Your task to perform on an android device: turn on the 24-hour format for clock Image 0: 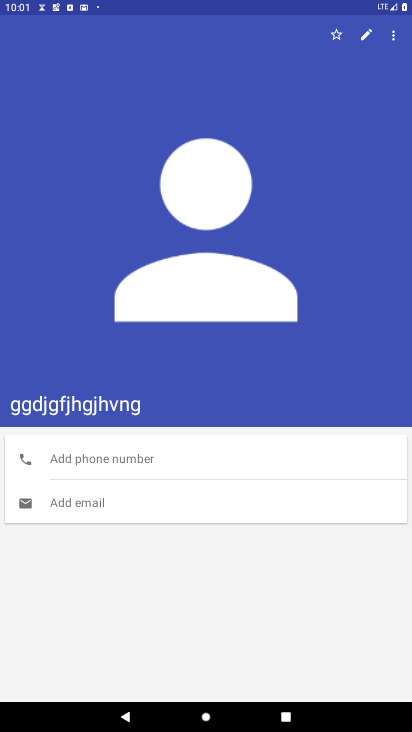
Step 0: press home button
Your task to perform on an android device: turn on the 24-hour format for clock Image 1: 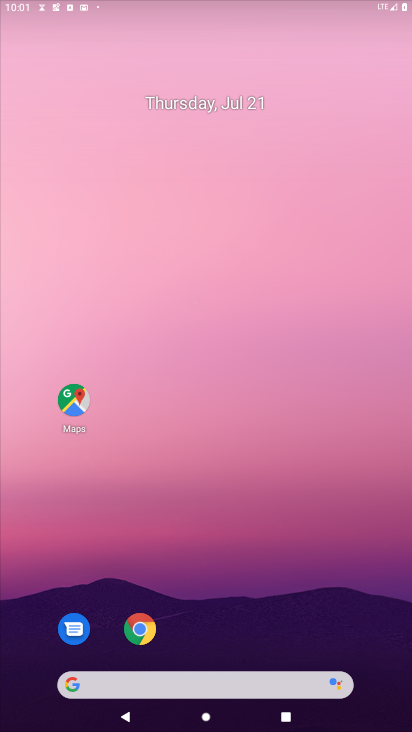
Step 1: drag from (229, 574) to (253, 101)
Your task to perform on an android device: turn on the 24-hour format for clock Image 2: 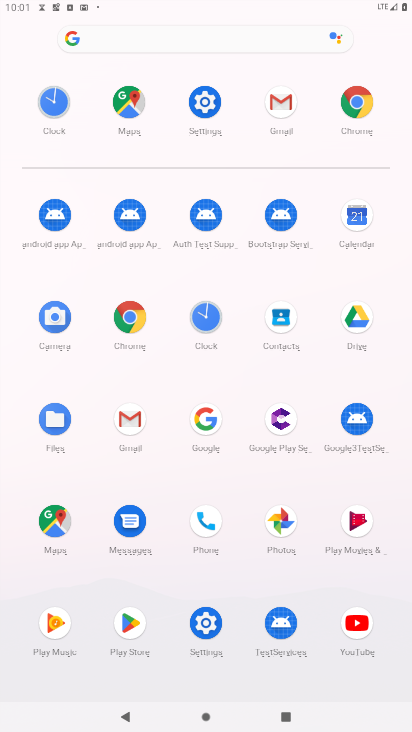
Step 2: click (190, 309)
Your task to perform on an android device: turn on the 24-hour format for clock Image 3: 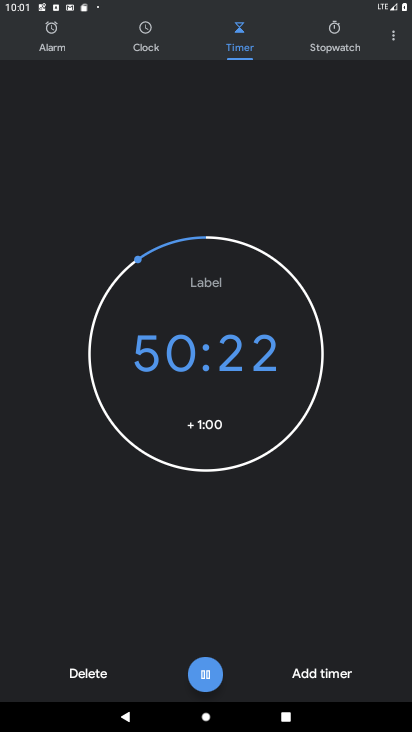
Step 3: click (396, 37)
Your task to perform on an android device: turn on the 24-hour format for clock Image 4: 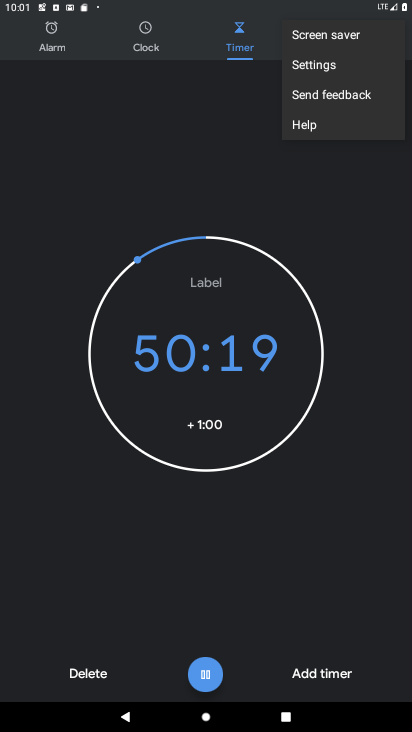
Step 4: click (345, 66)
Your task to perform on an android device: turn on the 24-hour format for clock Image 5: 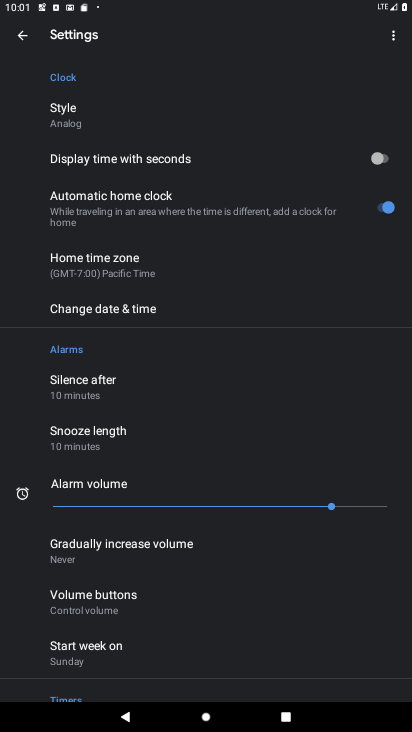
Step 5: click (172, 313)
Your task to perform on an android device: turn on the 24-hour format for clock Image 6: 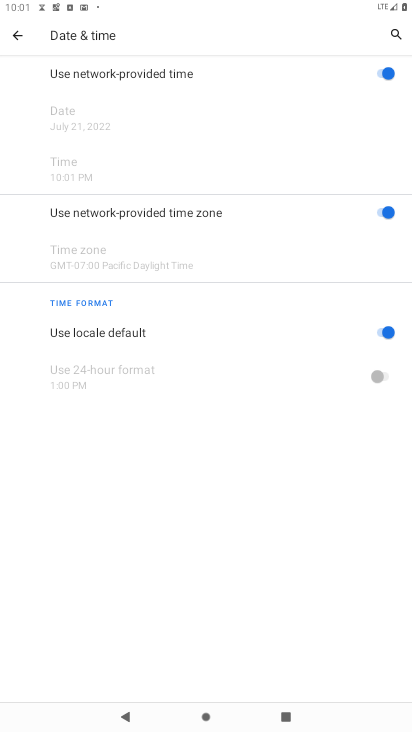
Step 6: click (388, 334)
Your task to perform on an android device: turn on the 24-hour format for clock Image 7: 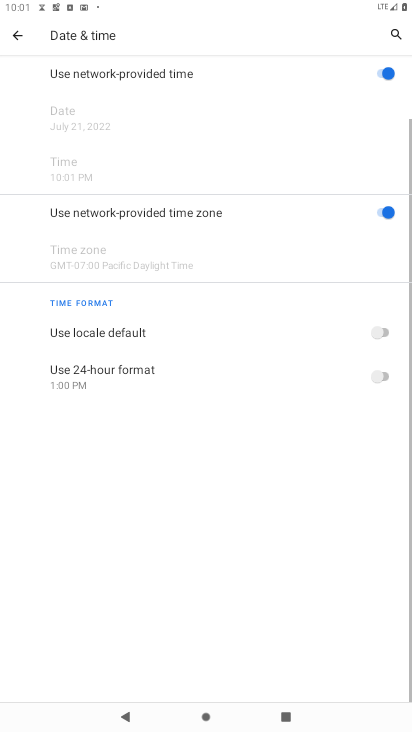
Step 7: click (380, 380)
Your task to perform on an android device: turn on the 24-hour format for clock Image 8: 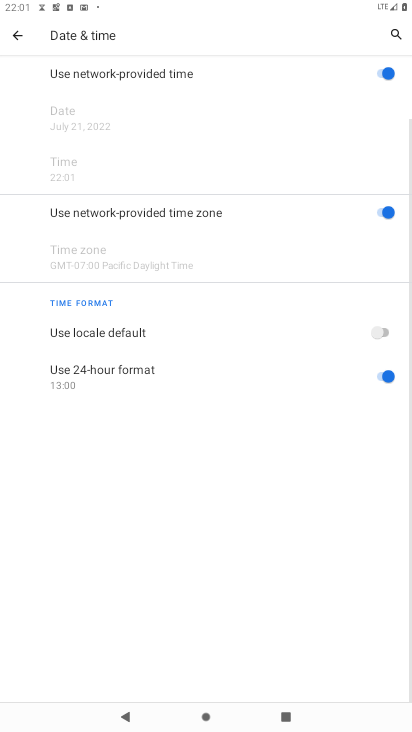
Step 8: task complete